Your task to perform on an android device: turn on javascript in the chrome app Image 0: 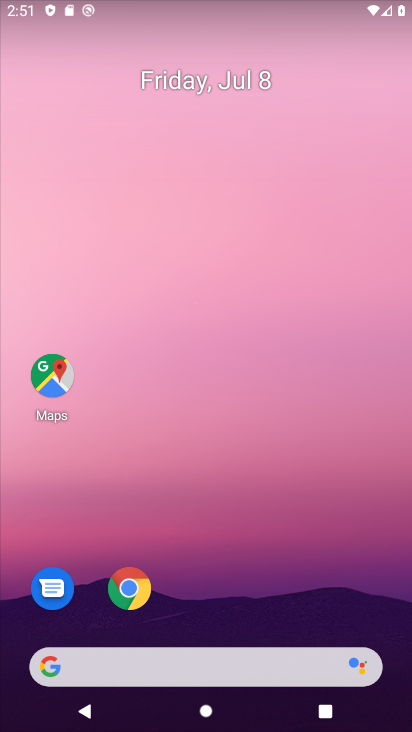
Step 0: click (123, 583)
Your task to perform on an android device: turn on javascript in the chrome app Image 1: 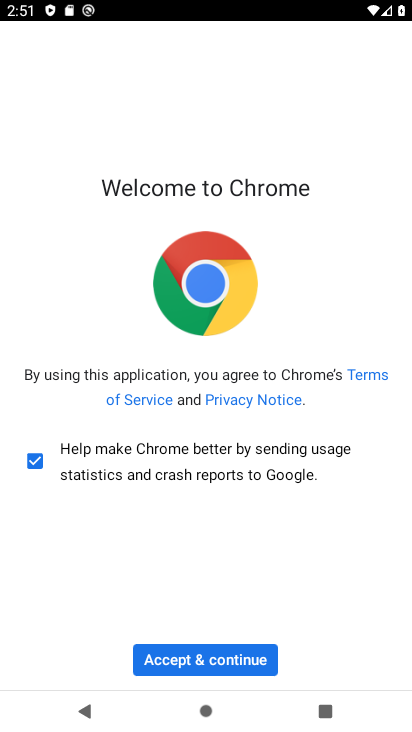
Step 1: click (193, 652)
Your task to perform on an android device: turn on javascript in the chrome app Image 2: 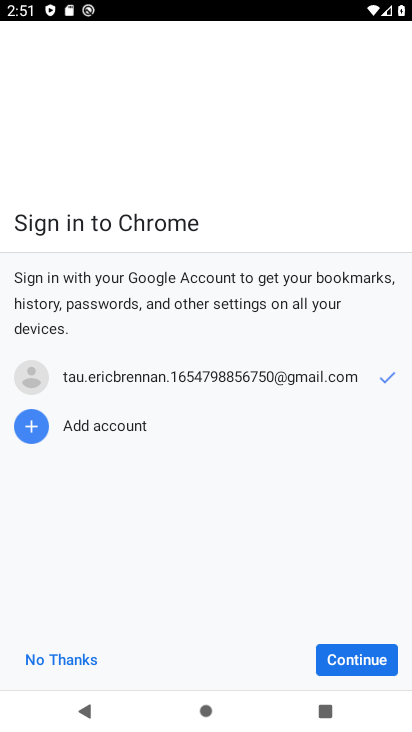
Step 2: click (349, 668)
Your task to perform on an android device: turn on javascript in the chrome app Image 3: 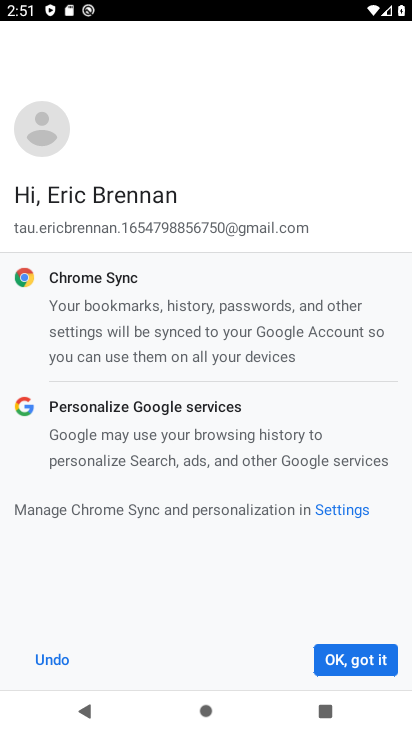
Step 3: click (349, 668)
Your task to perform on an android device: turn on javascript in the chrome app Image 4: 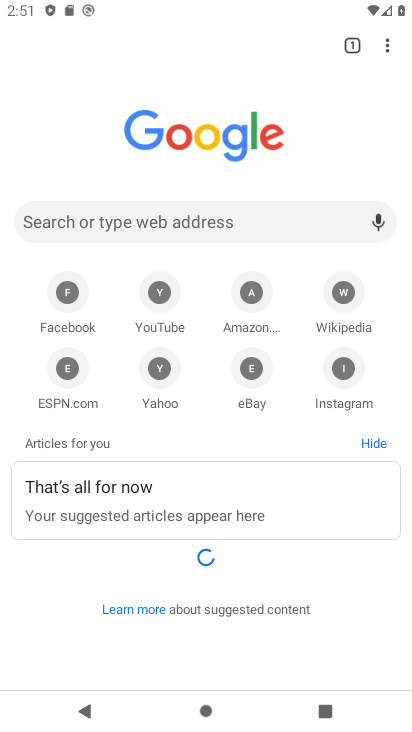
Step 4: drag from (385, 43) to (250, 387)
Your task to perform on an android device: turn on javascript in the chrome app Image 5: 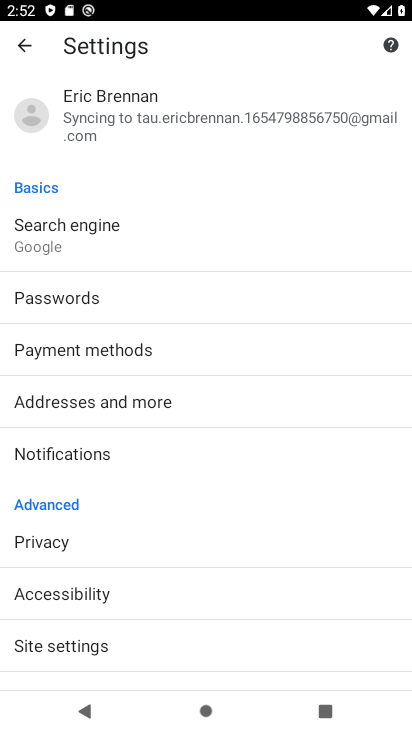
Step 5: click (85, 650)
Your task to perform on an android device: turn on javascript in the chrome app Image 6: 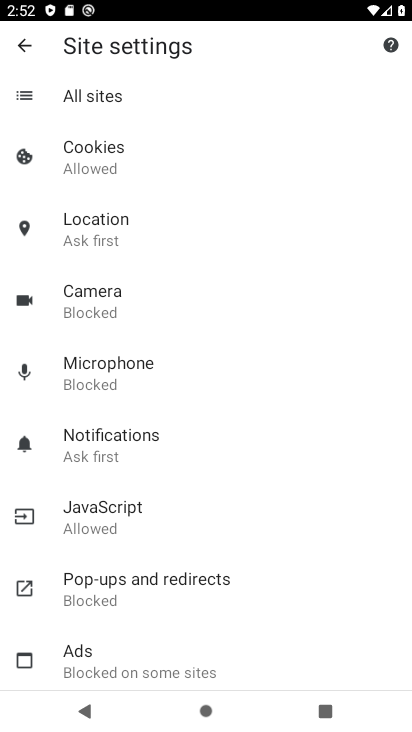
Step 6: click (129, 510)
Your task to perform on an android device: turn on javascript in the chrome app Image 7: 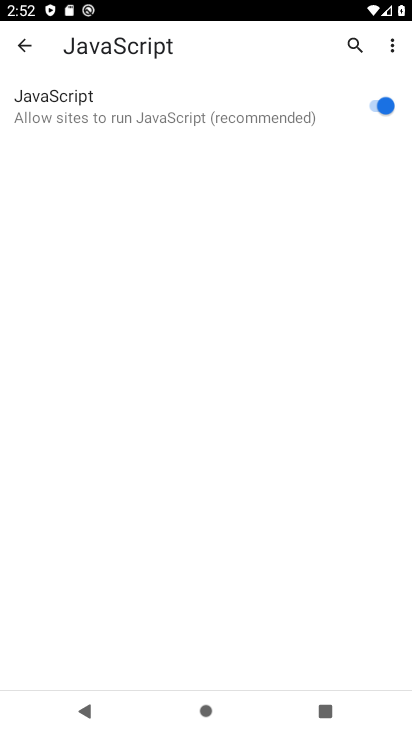
Step 7: task complete